Your task to perform on an android device: Open Youtube and go to the subscriptions tab Image 0: 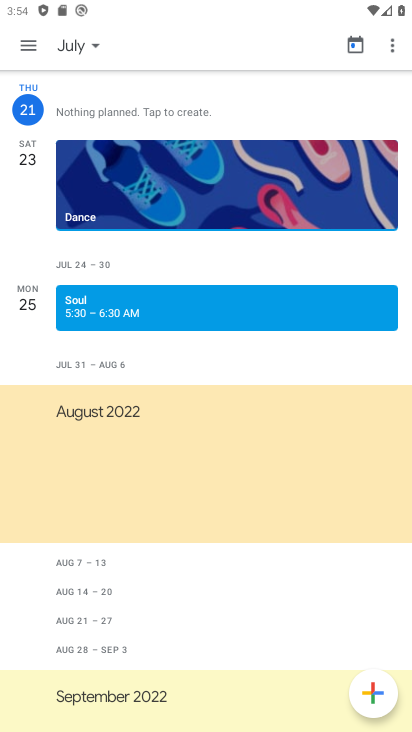
Step 0: press home button
Your task to perform on an android device: Open Youtube and go to the subscriptions tab Image 1: 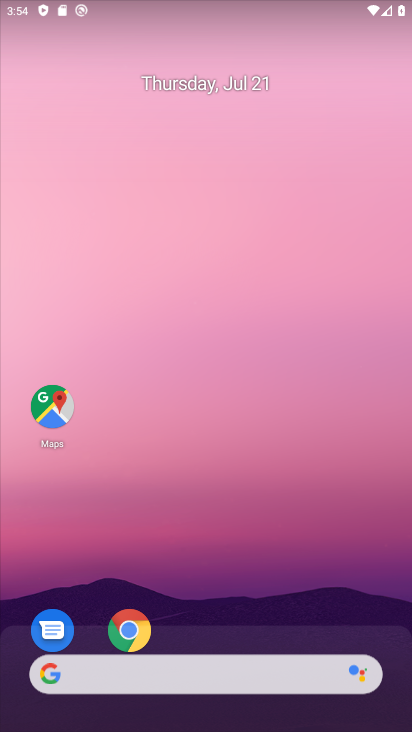
Step 1: drag from (210, 554) to (252, 9)
Your task to perform on an android device: Open Youtube and go to the subscriptions tab Image 2: 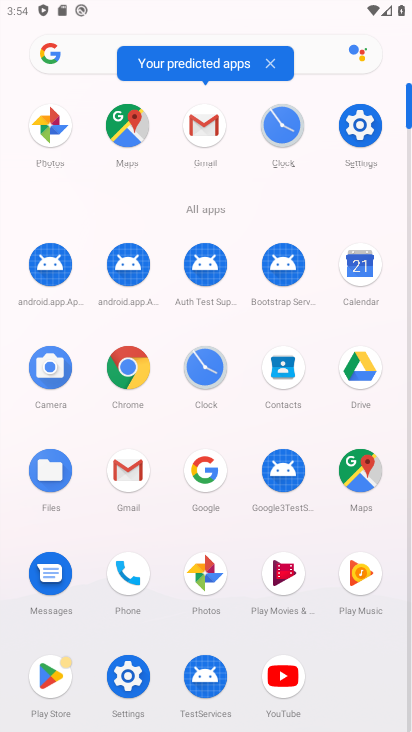
Step 2: click (284, 674)
Your task to perform on an android device: Open Youtube and go to the subscriptions tab Image 3: 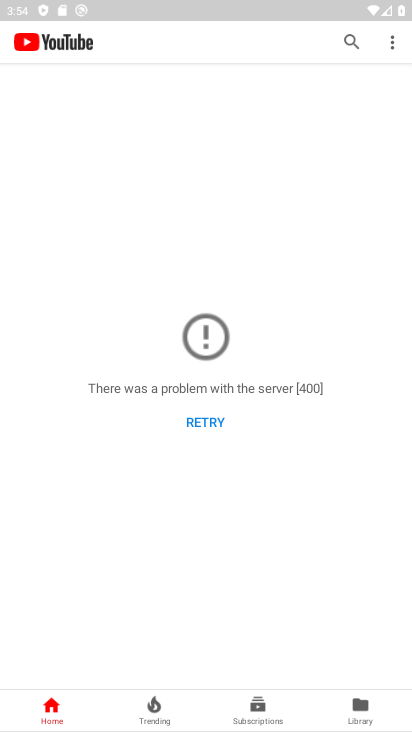
Step 3: click (266, 705)
Your task to perform on an android device: Open Youtube and go to the subscriptions tab Image 4: 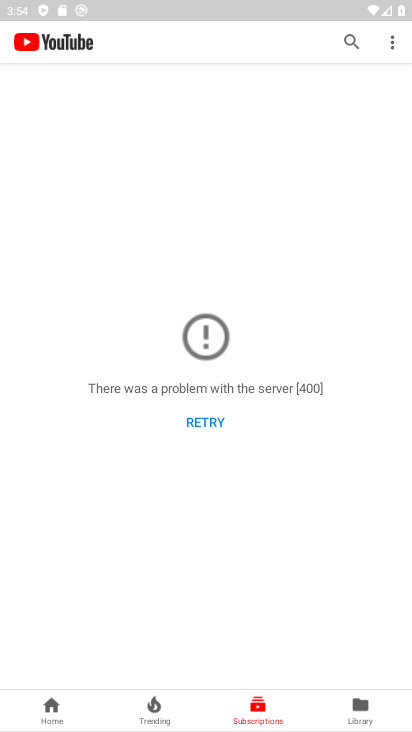
Step 4: task complete